Your task to perform on an android device: manage bookmarks in the chrome app Image 0: 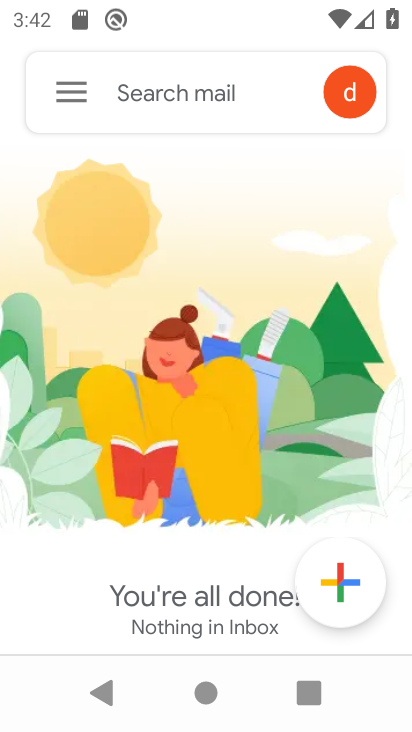
Step 0: press home button
Your task to perform on an android device: manage bookmarks in the chrome app Image 1: 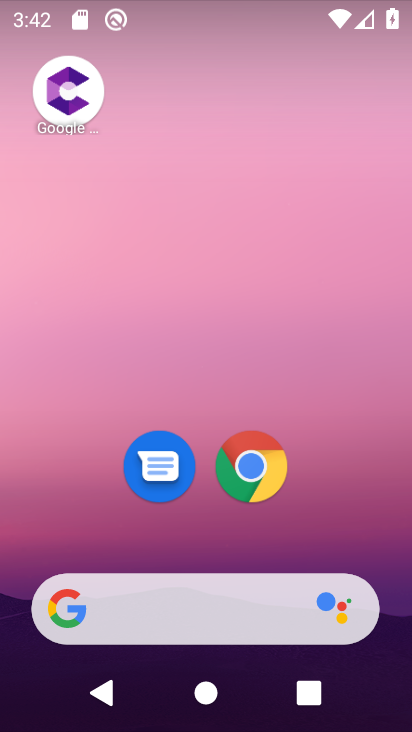
Step 1: drag from (327, 522) to (361, 89)
Your task to perform on an android device: manage bookmarks in the chrome app Image 2: 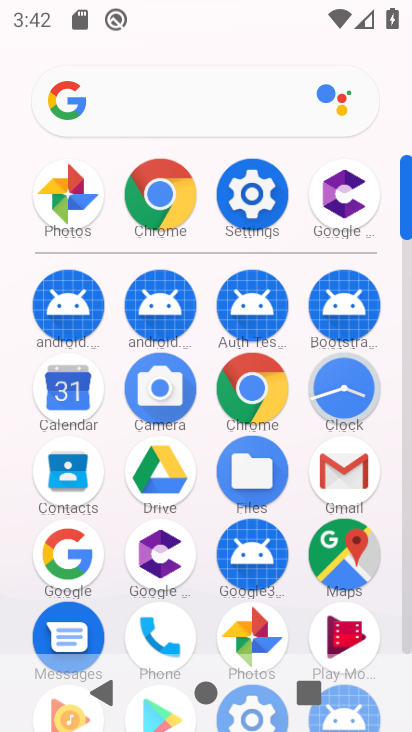
Step 2: click (240, 399)
Your task to perform on an android device: manage bookmarks in the chrome app Image 3: 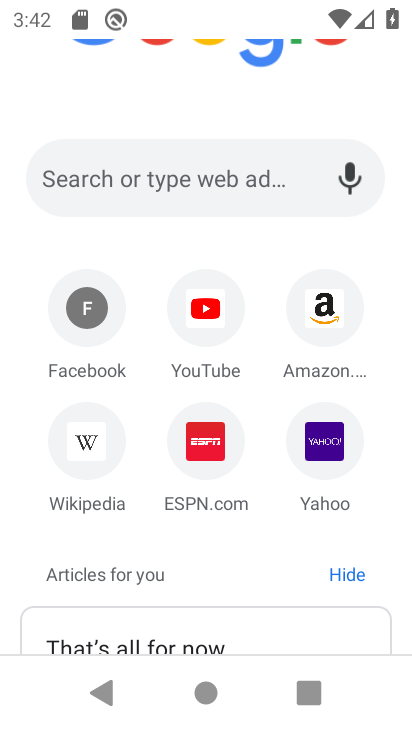
Step 3: drag from (347, 103) to (295, 467)
Your task to perform on an android device: manage bookmarks in the chrome app Image 4: 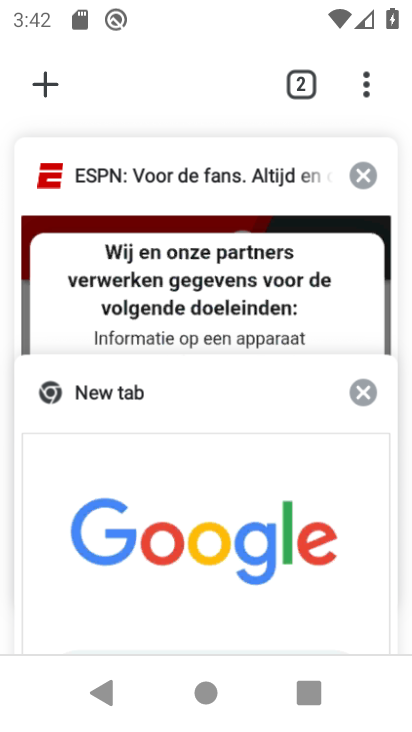
Step 4: click (258, 378)
Your task to perform on an android device: manage bookmarks in the chrome app Image 5: 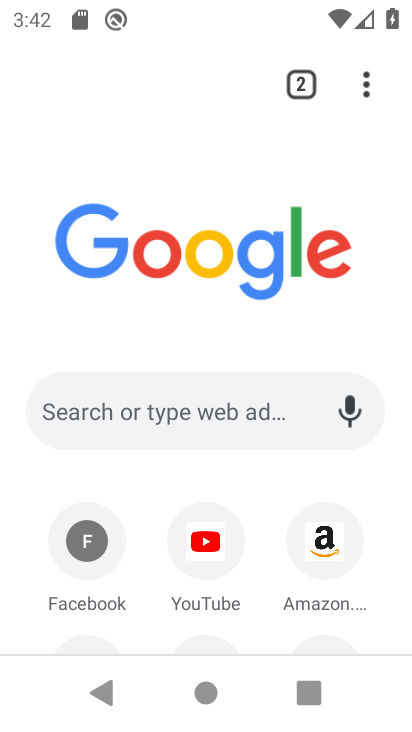
Step 5: drag from (366, 78) to (95, 337)
Your task to perform on an android device: manage bookmarks in the chrome app Image 6: 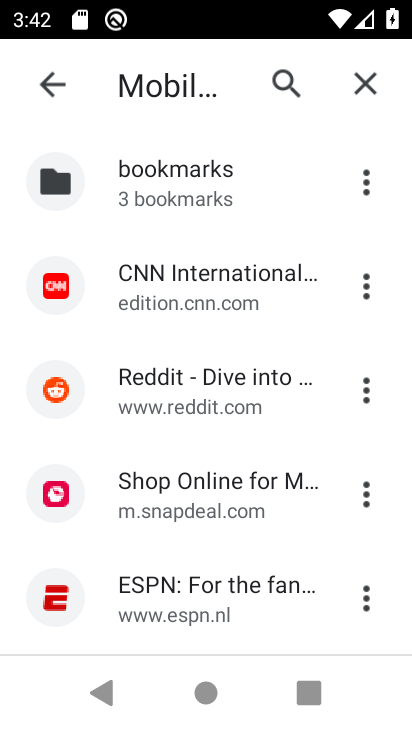
Step 6: click (32, 279)
Your task to perform on an android device: manage bookmarks in the chrome app Image 7: 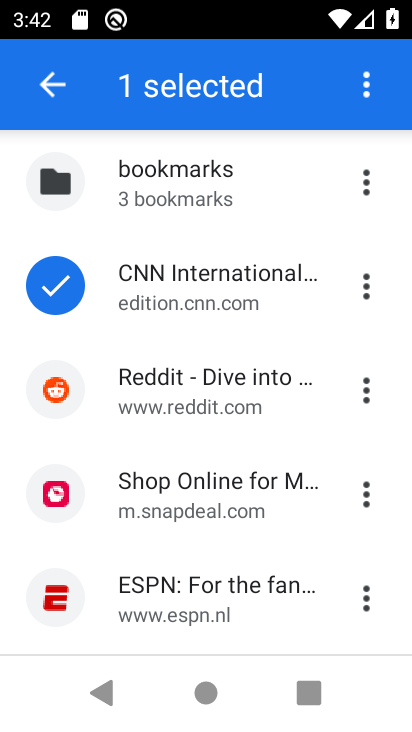
Step 7: click (365, 279)
Your task to perform on an android device: manage bookmarks in the chrome app Image 8: 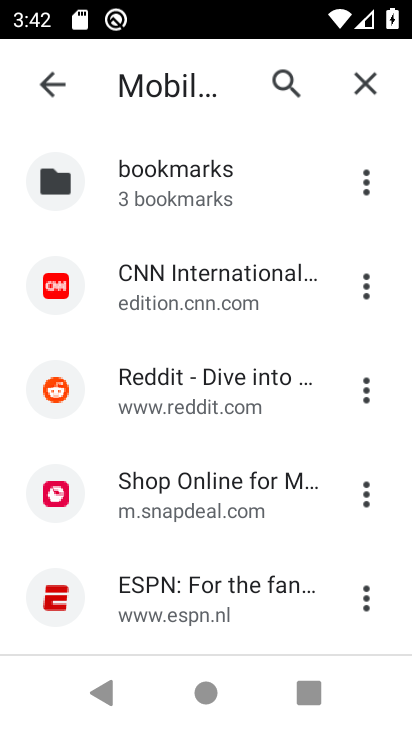
Step 8: click (365, 279)
Your task to perform on an android device: manage bookmarks in the chrome app Image 9: 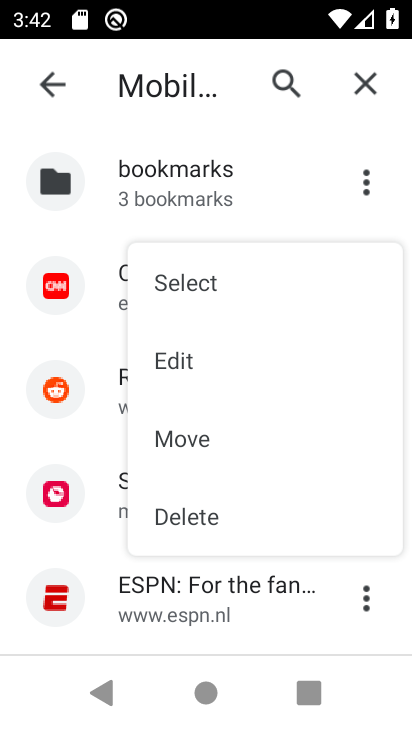
Step 9: click (172, 524)
Your task to perform on an android device: manage bookmarks in the chrome app Image 10: 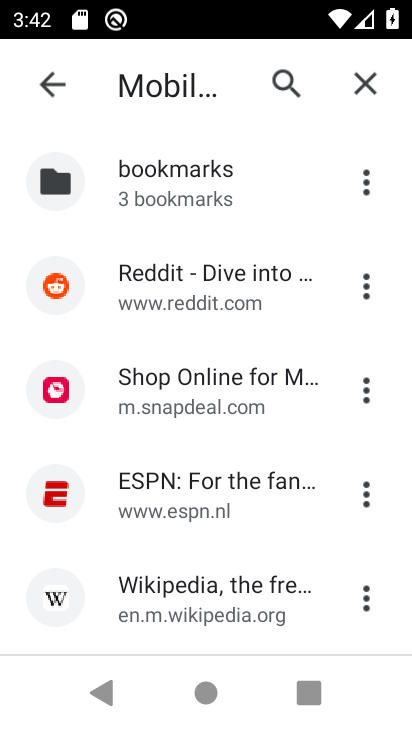
Step 10: task complete